Your task to perform on an android device: Open privacy settings Image 0: 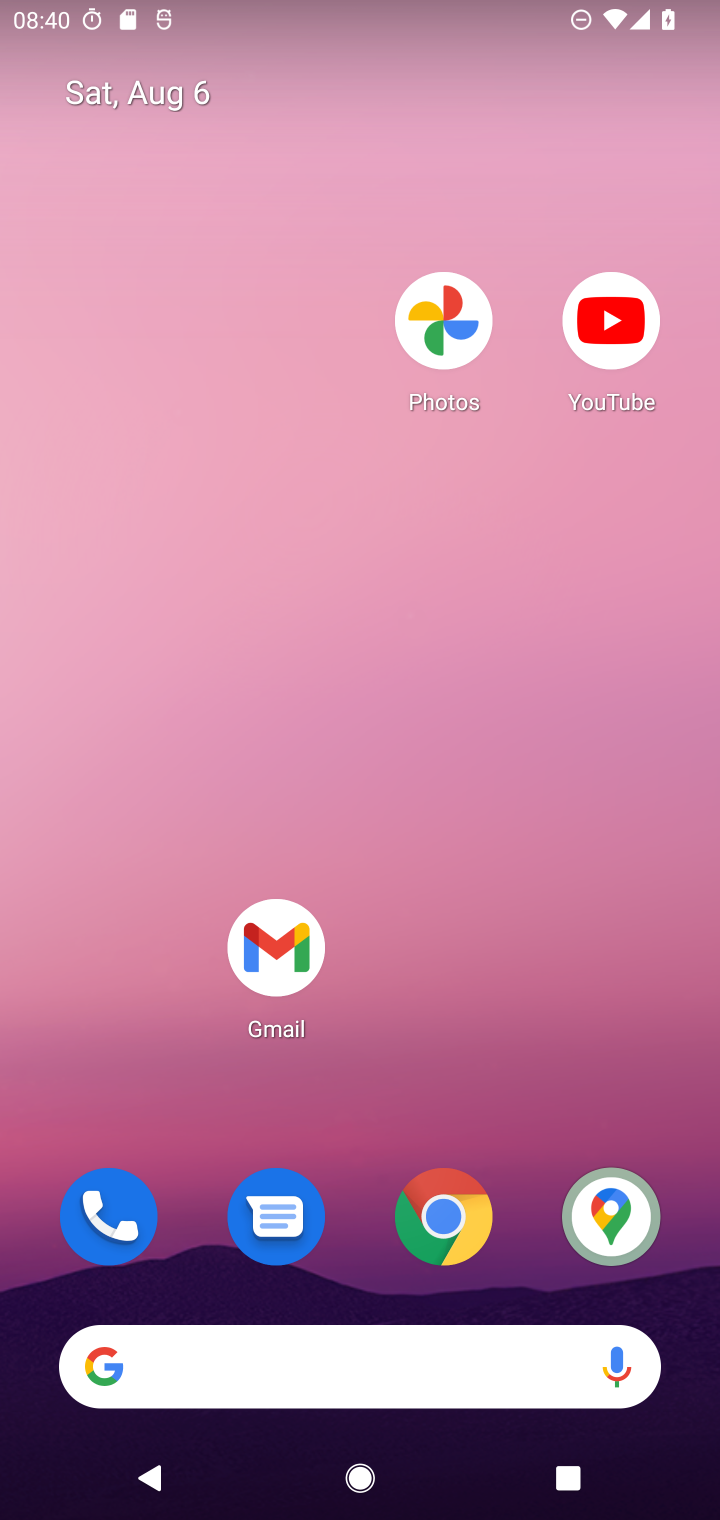
Step 0: drag from (418, 1077) to (300, 220)
Your task to perform on an android device: Open privacy settings Image 1: 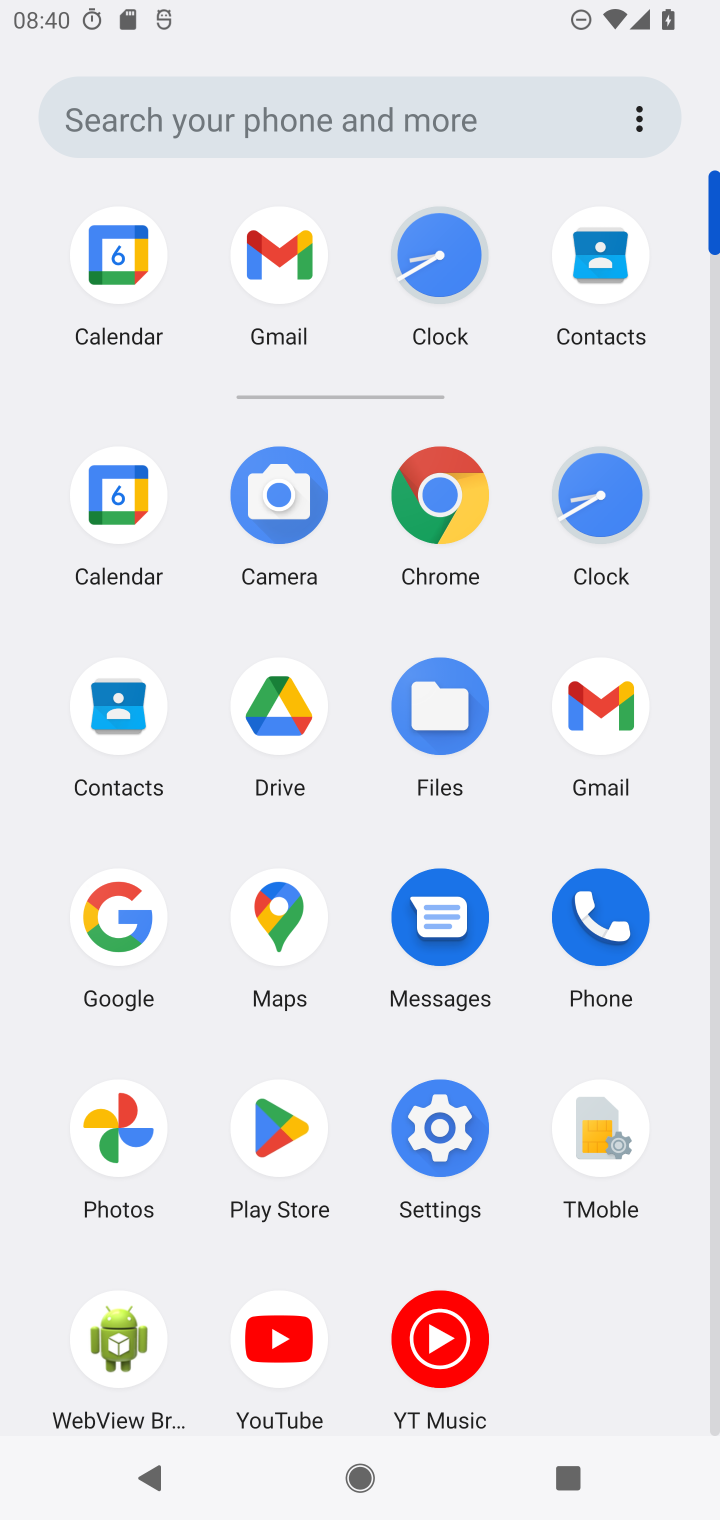
Step 1: click (440, 1140)
Your task to perform on an android device: Open privacy settings Image 2: 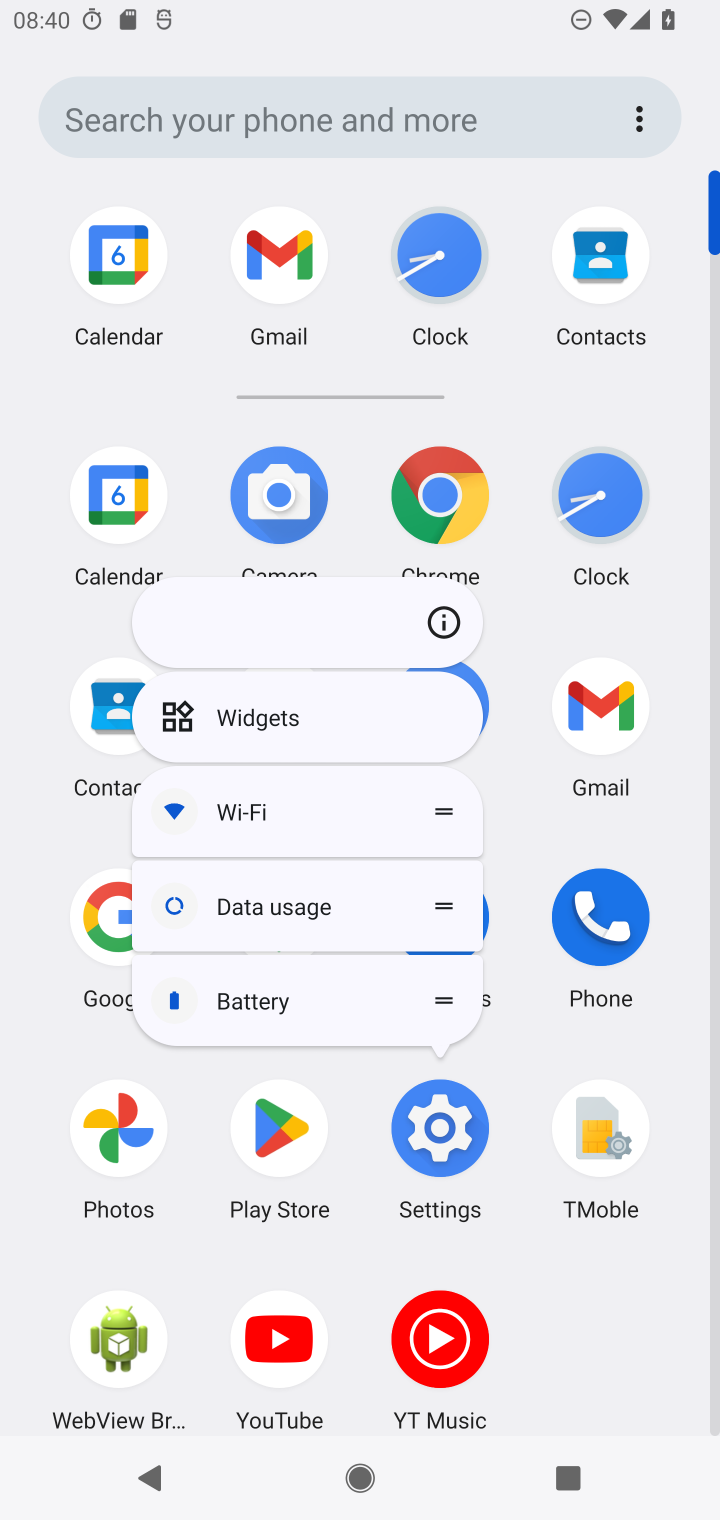
Step 2: click (455, 1138)
Your task to perform on an android device: Open privacy settings Image 3: 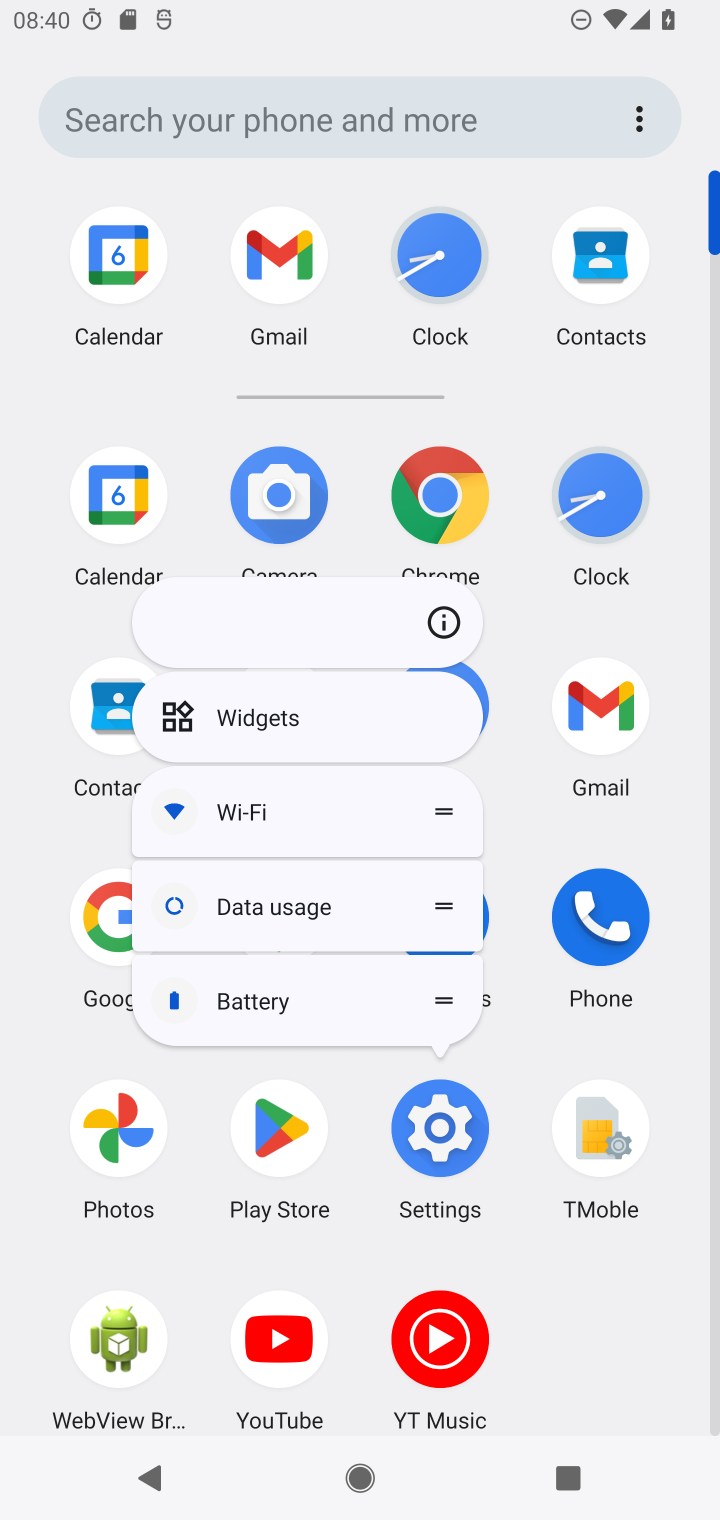
Step 3: click (452, 1130)
Your task to perform on an android device: Open privacy settings Image 4: 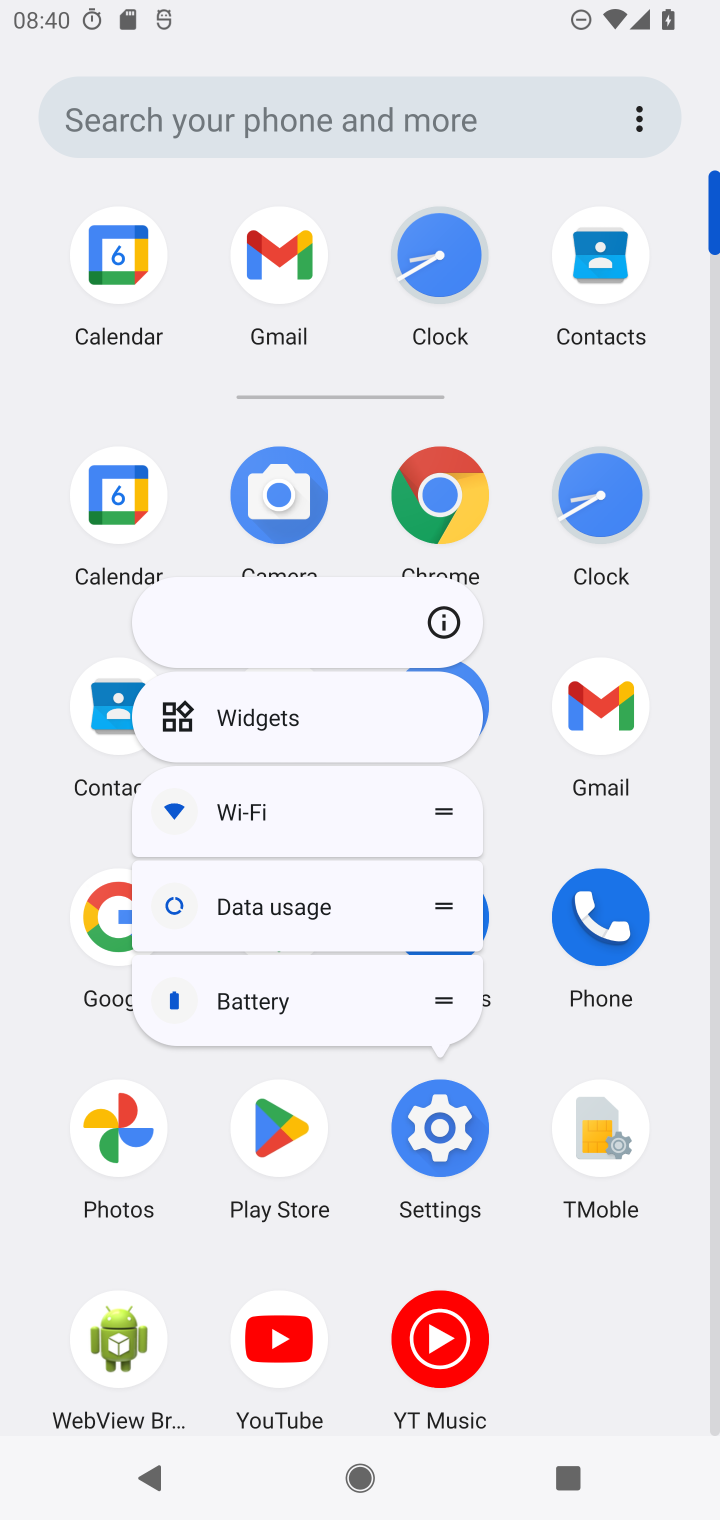
Step 4: click (580, 1217)
Your task to perform on an android device: Open privacy settings Image 5: 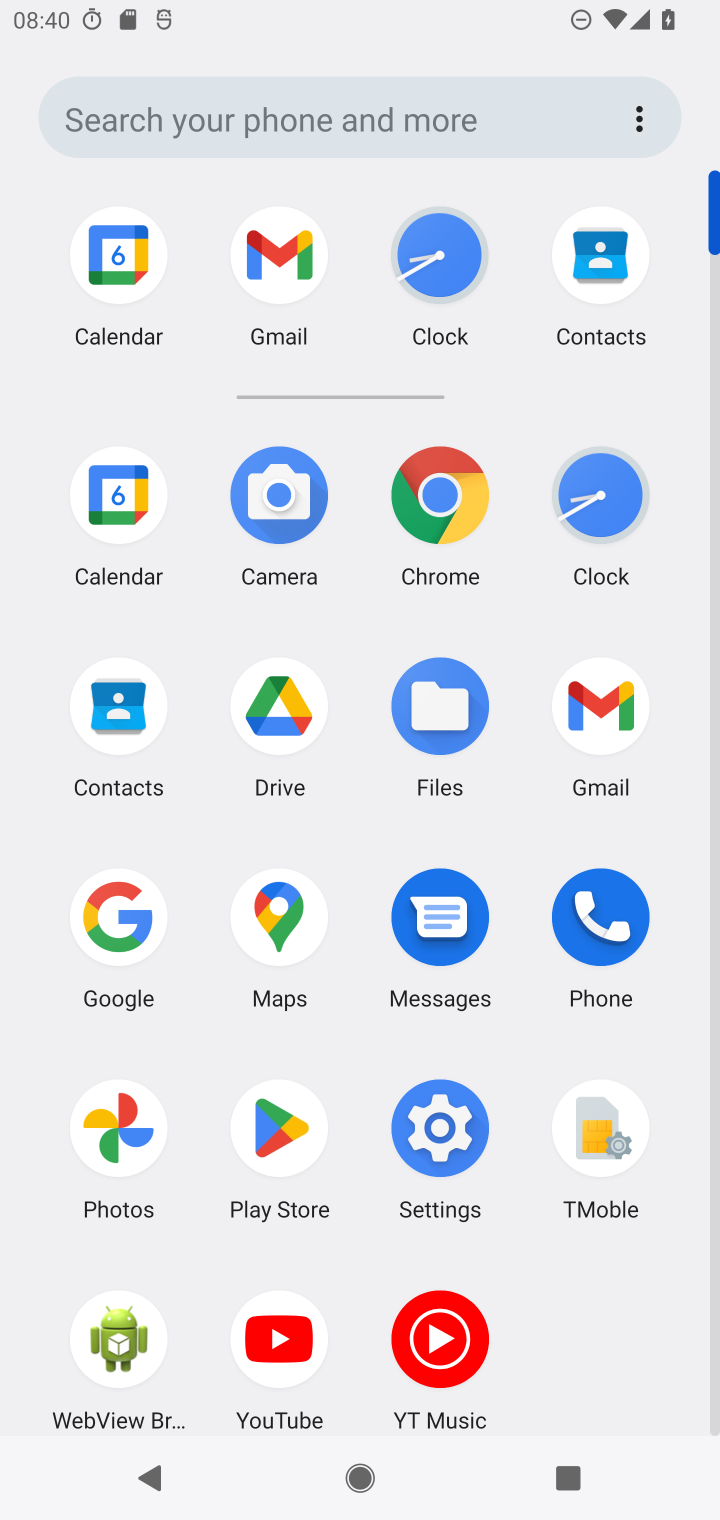
Step 5: click (439, 1128)
Your task to perform on an android device: Open privacy settings Image 6: 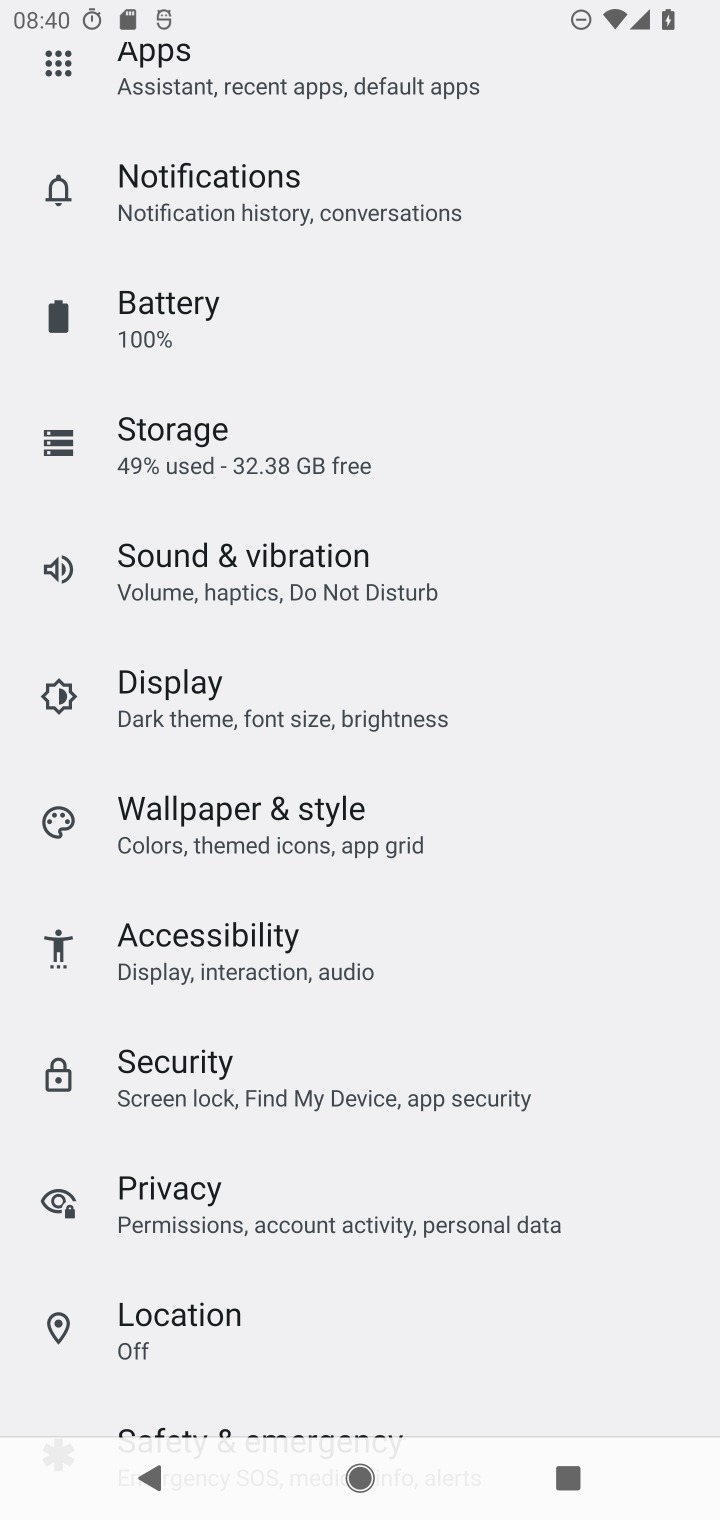
Step 6: click (176, 1200)
Your task to perform on an android device: Open privacy settings Image 7: 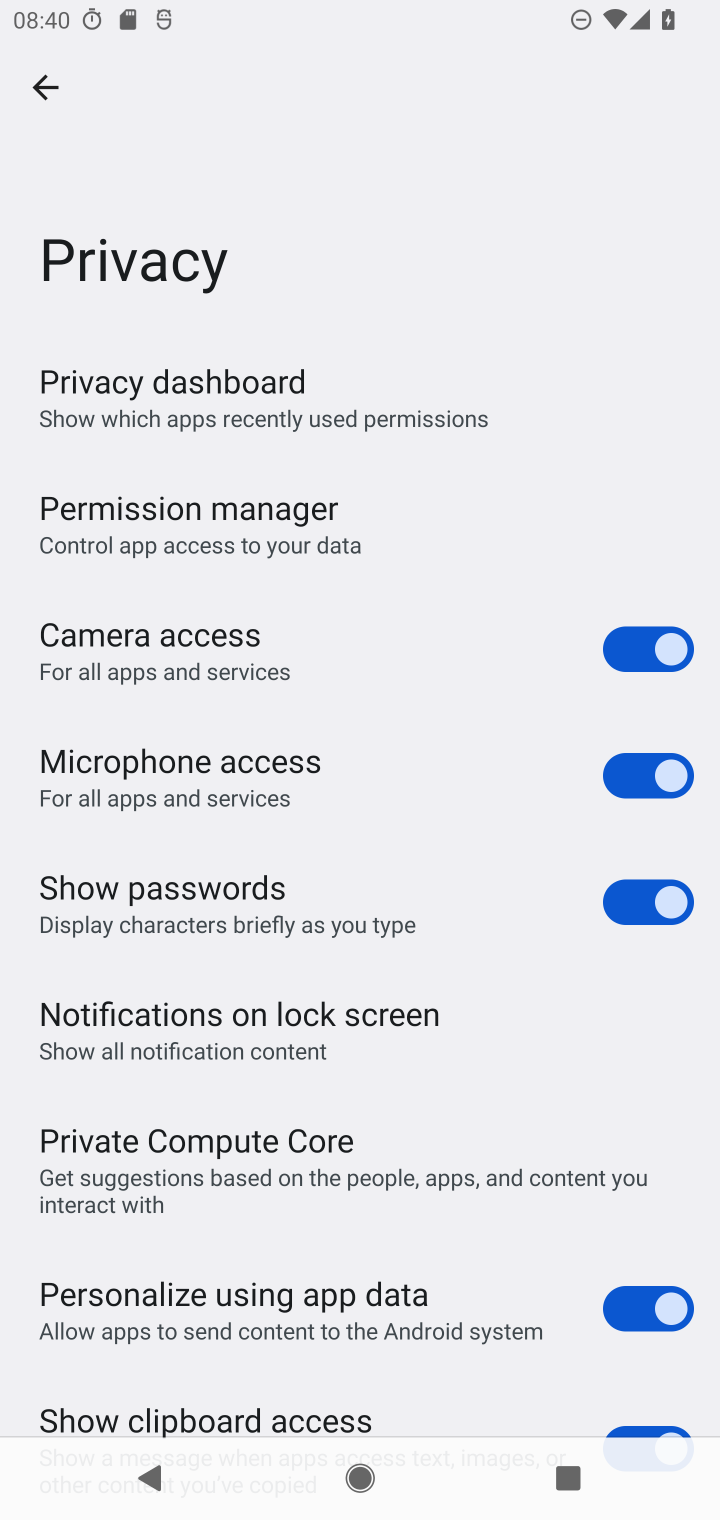
Step 7: task complete